Your task to perform on an android device: check data usage Image 0: 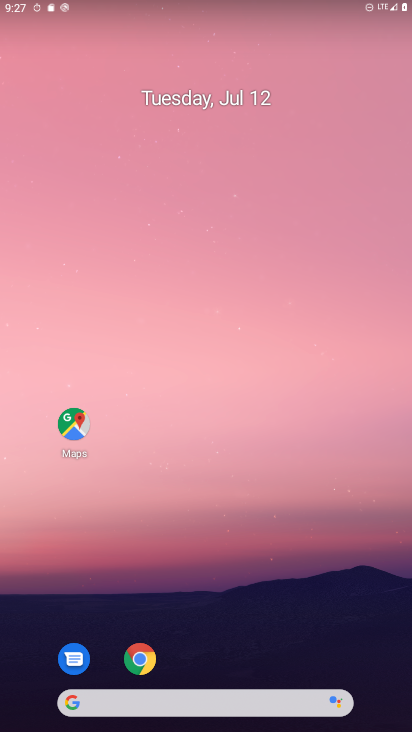
Step 0: drag from (403, 702) to (271, 28)
Your task to perform on an android device: check data usage Image 1: 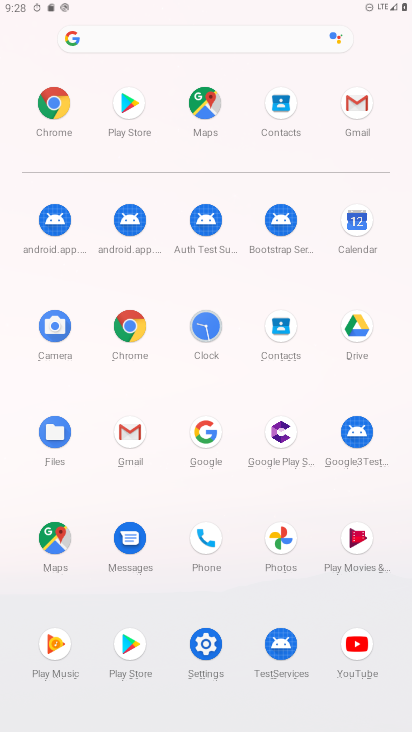
Step 1: click (206, 643)
Your task to perform on an android device: check data usage Image 2: 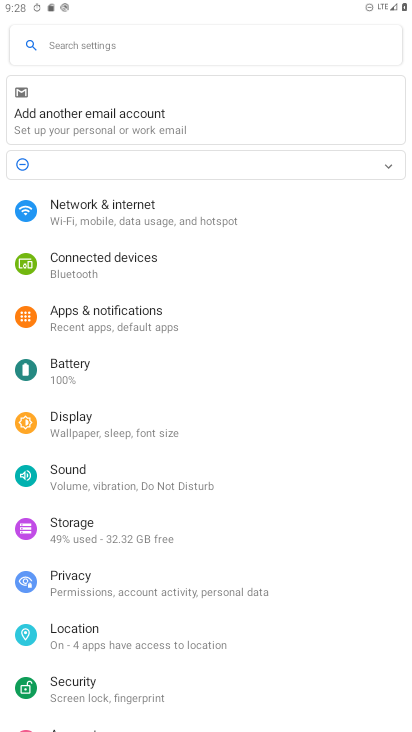
Step 2: click (214, 222)
Your task to perform on an android device: check data usage Image 3: 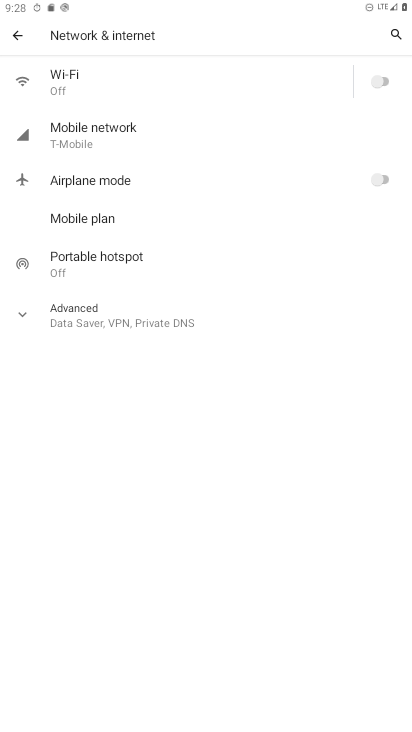
Step 3: task complete